Your task to perform on an android device: Open Youtube and go to the subscriptions tab Image 0: 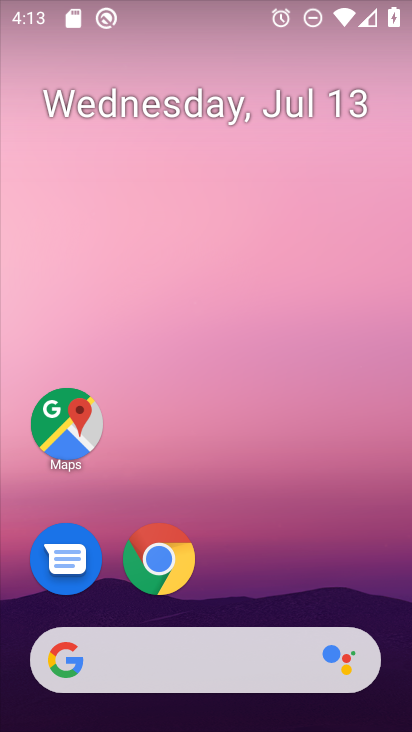
Step 0: drag from (352, 576) to (350, 181)
Your task to perform on an android device: Open Youtube and go to the subscriptions tab Image 1: 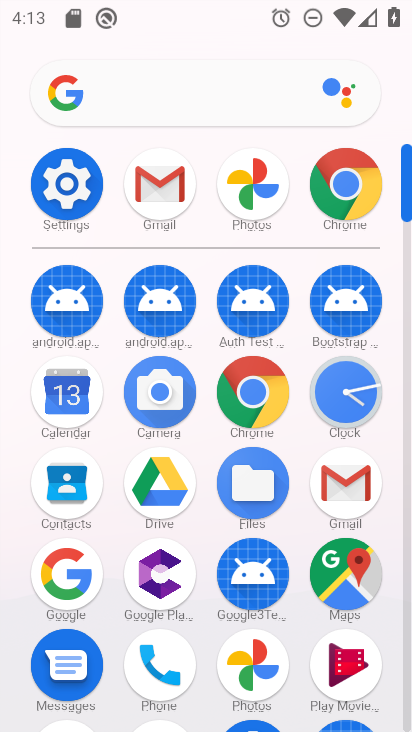
Step 1: drag from (384, 621) to (368, 336)
Your task to perform on an android device: Open Youtube and go to the subscriptions tab Image 2: 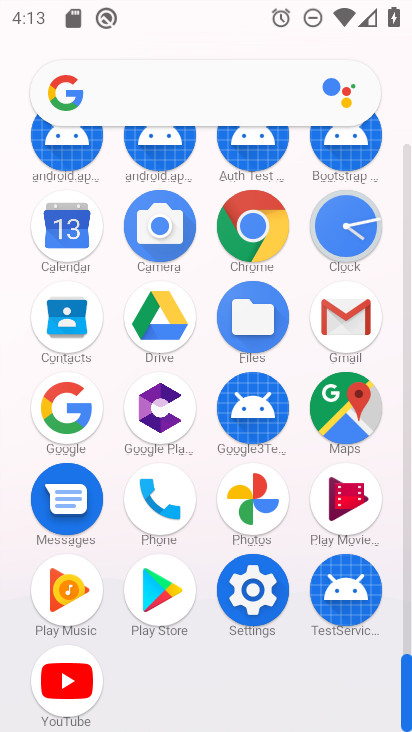
Step 2: click (78, 681)
Your task to perform on an android device: Open Youtube and go to the subscriptions tab Image 3: 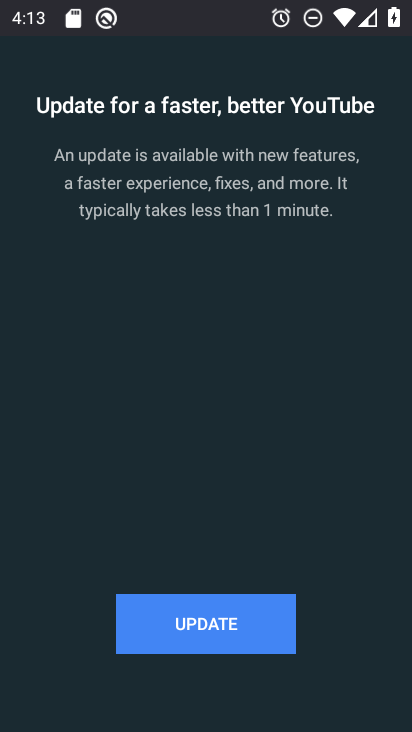
Step 3: click (176, 635)
Your task to perform on an android device: Open Youtube and go to the subscriptions tab Image 4: 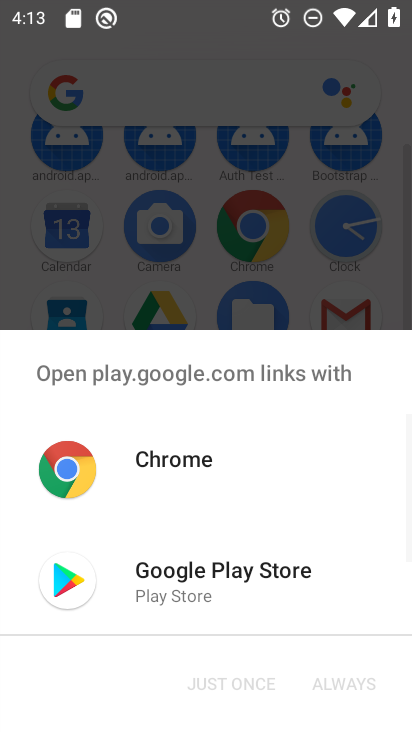
Step 4: click (180, 595)
Your task to perform on an android device: Open Youtube and go to the subscriptions tab Image 5: 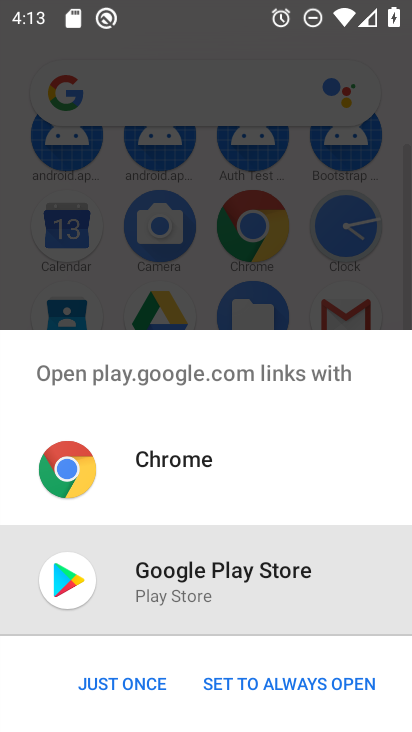
Step 5: click (129, 670)
Your task to perform on an android device: Open Youtube and go to the subscriptions tab Image 6: 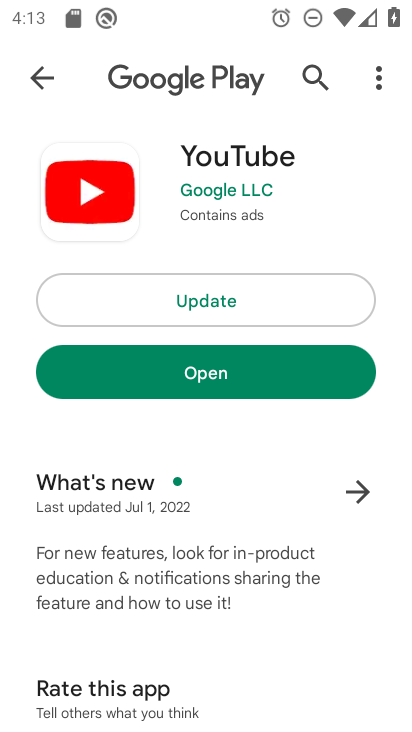
Step 6: click (327, 297)
Your task to perform on an android device: Open Youtube and go to the subscriptions tab Image 7: 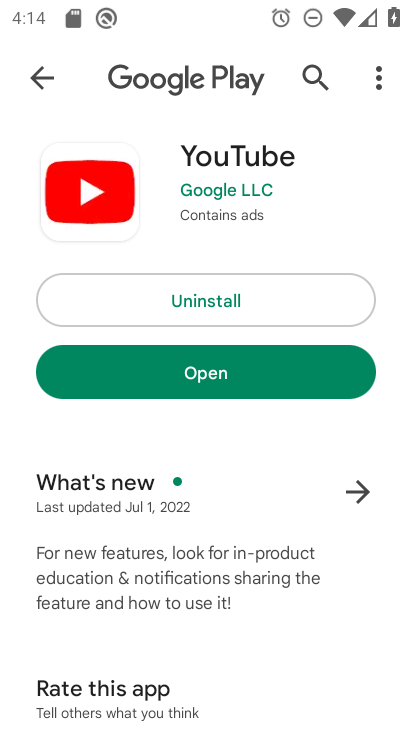
Step 7: click (302, 383)
Your task to perform on an android device: Open Youtube and go to the subscriptions tab Image 8: 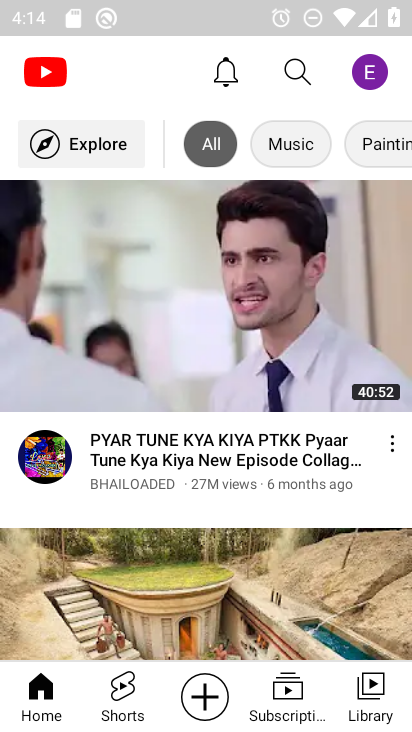
Step 8: click (279, 695)
Your task to perform on an android device: Open Youtube and go to the subscriptions tab Image 9: 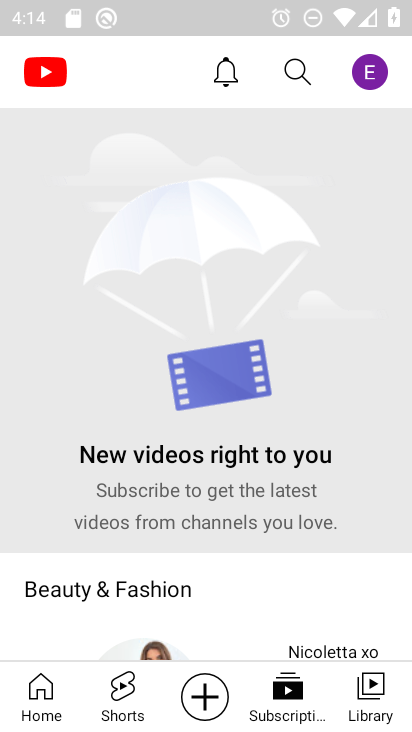
Step 9: task complete